Your task to perform on an android device: open app "ColorNote Notepad Notes" Image 0: 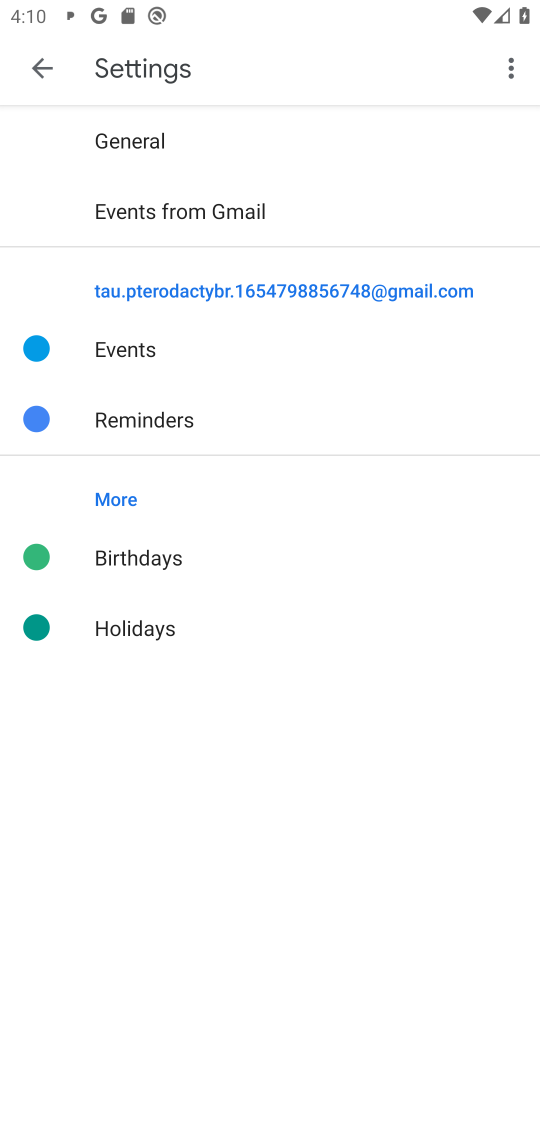
Step 0: press home button
Your task to perform on an android device: open app "ColorNote Notepad Notes" Image 1: 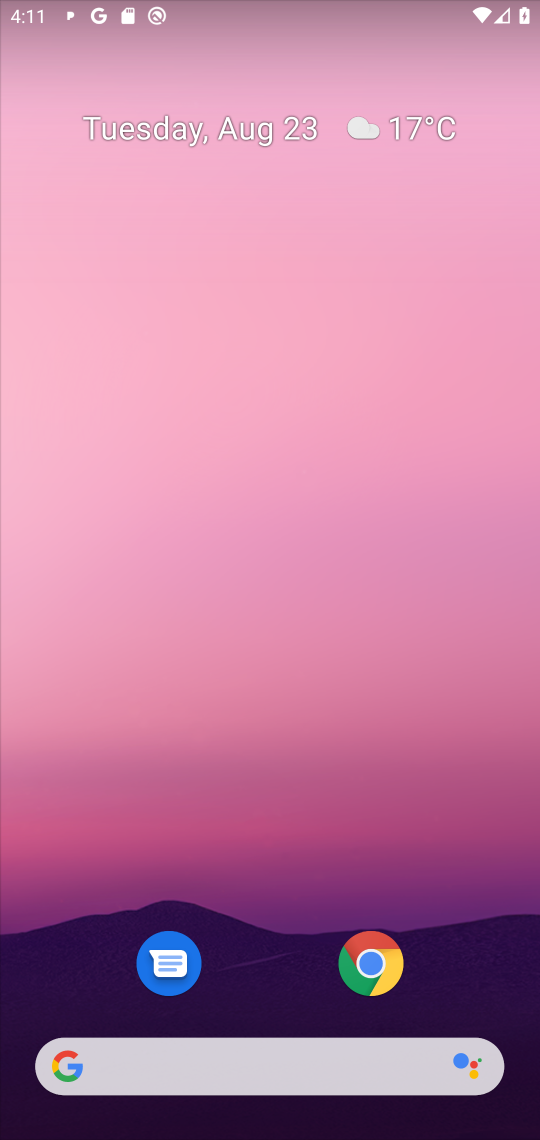
Step 1: drag from (276, 1008) to (281, 160)
Your task to perform on an android device: open app "ColorNote Notepad Notes" Image 2: 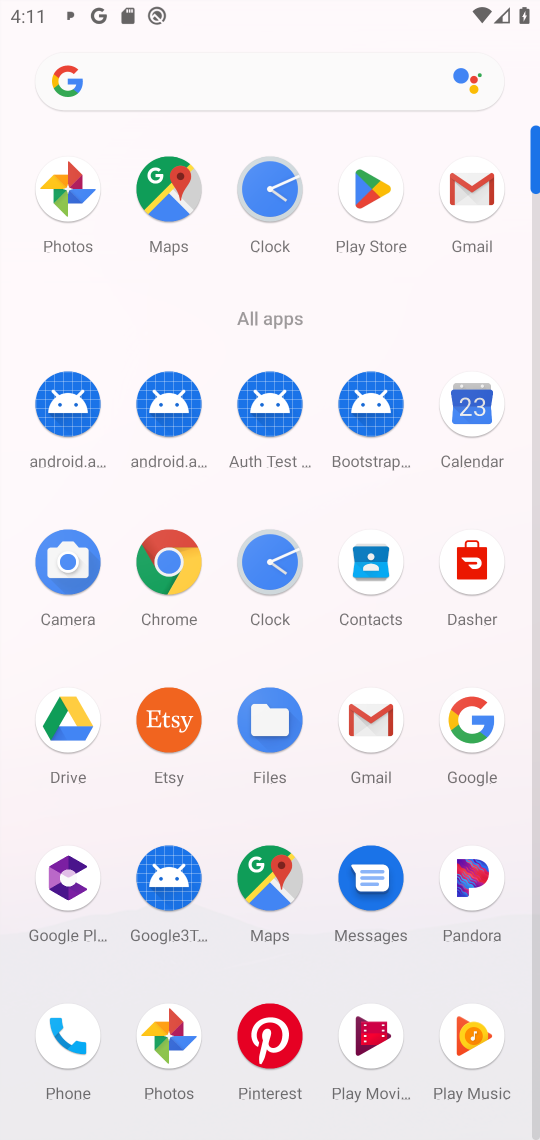
Step 2: click (362, 180)
Your task to perform on an android device: open app "ColorNote Notepad Notes" Image 3: 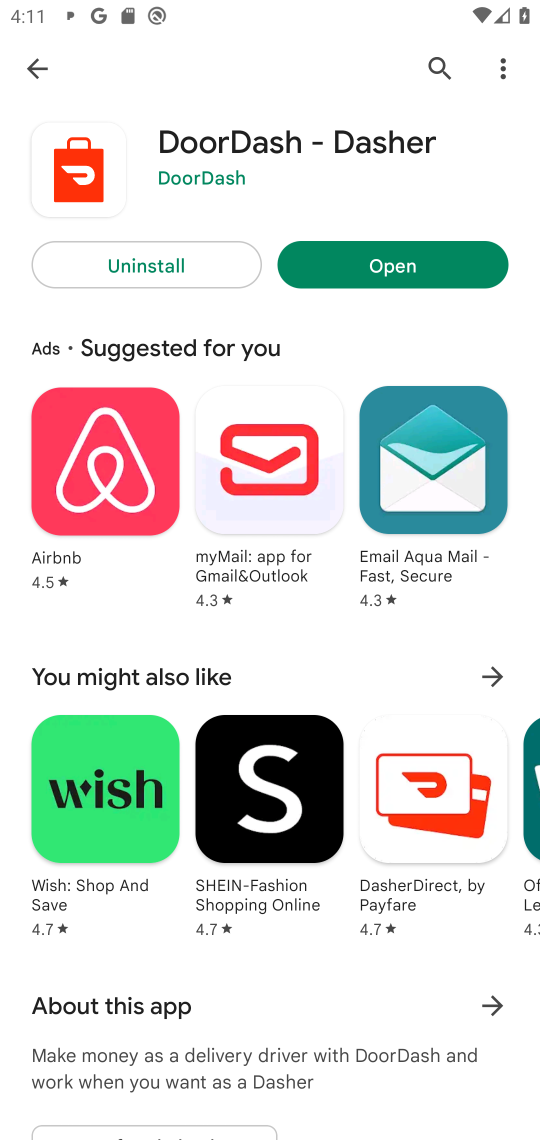
Step 3: click (437, 75)
Your task to perform on an android device: open app "ColorNote Notepad Notes" Image 4: 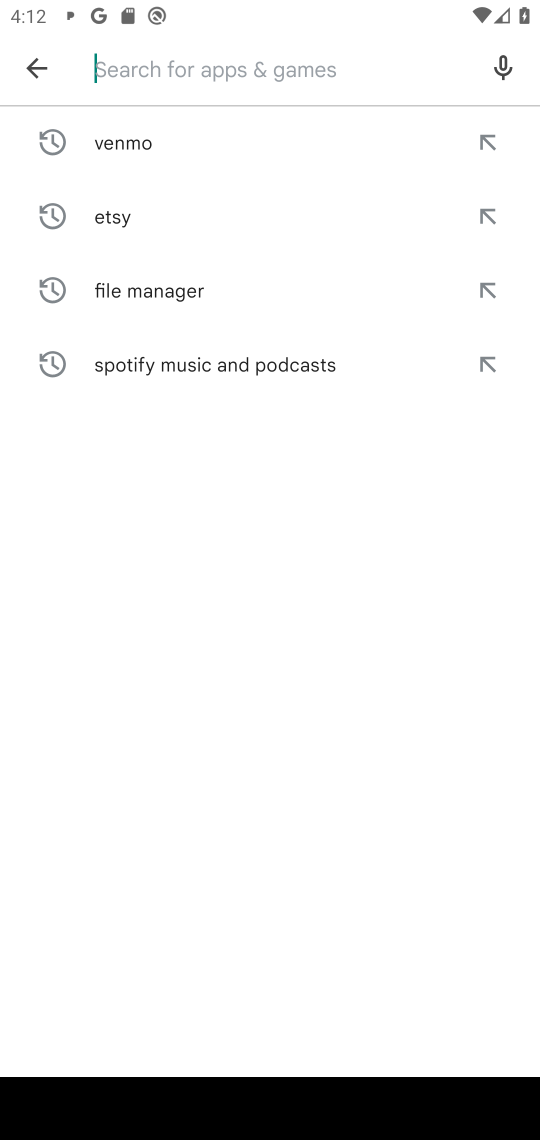
Step 4: type "ColorNote Notepad Notes"
Your task to perform on an android device: open app "ColorNote Notepad Notes" Image 5: 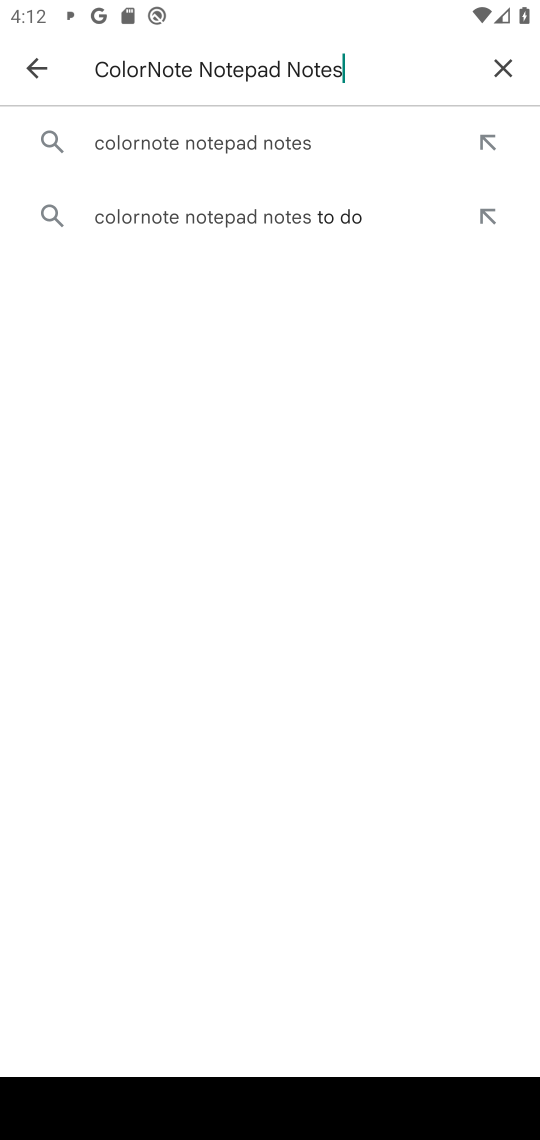
Step 5: click (190, 138)
Your task to perform on an android device: open app "ColorNote Notepad Notes" Image 6: 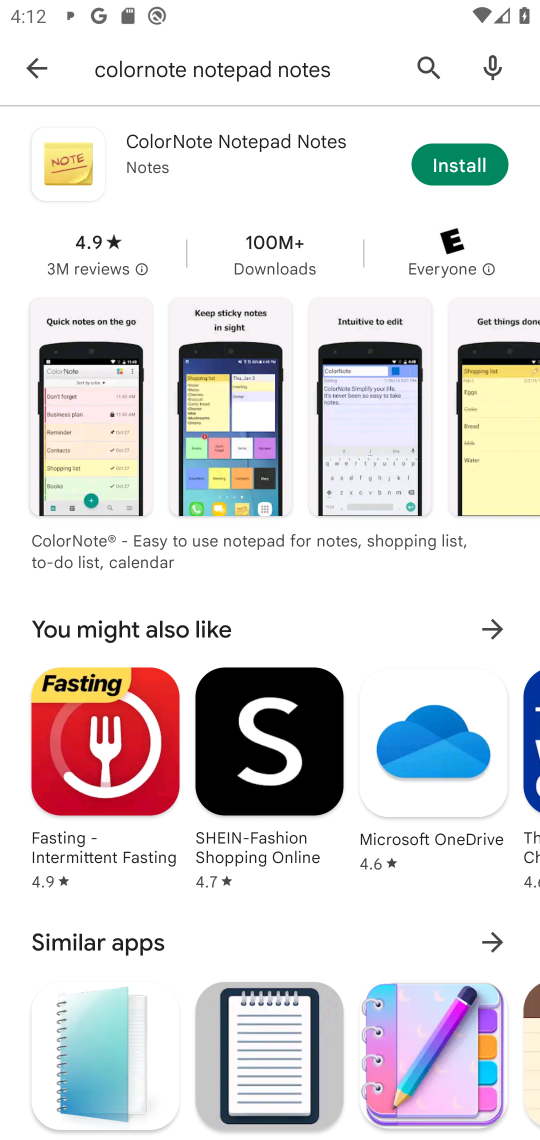
Step 6: task complete